Your task to perform on an android device: turn on javascript in the chrome app Image 0: 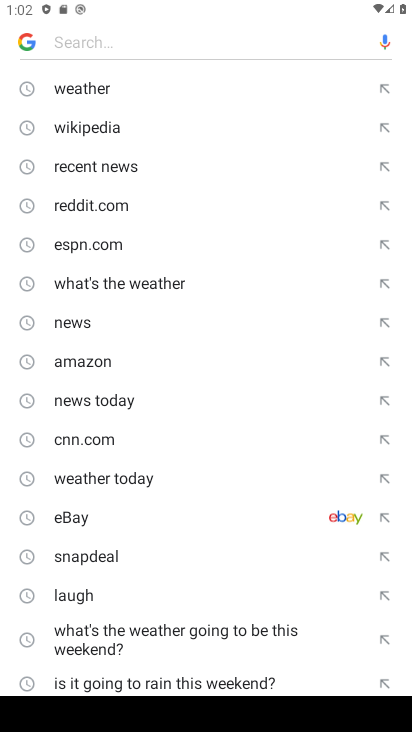
Step 0: press home button
Your task to perform on an android device: turn on javascript in the chrome app Image 1: 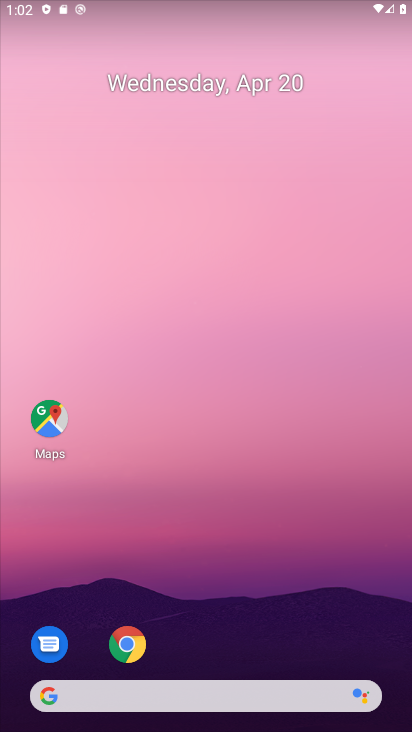
Step 1: click (130, 641)
Your task to perform on an android device: turn on javascript in the chrome app Image 2: 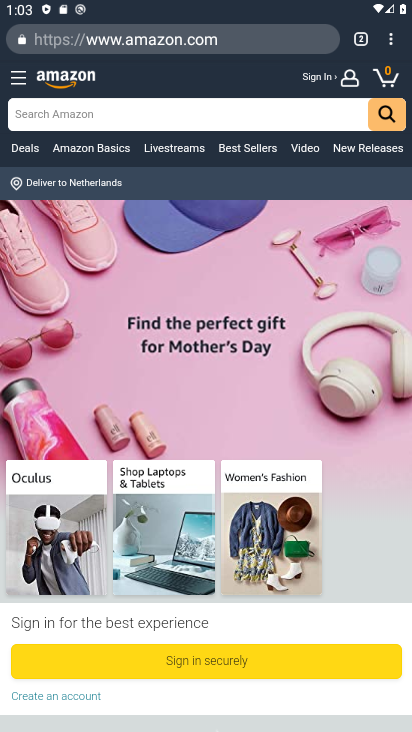
Step 2: click (391, 37)
Your task to perform on an android device: turn on javascript in the chrome app Image 3: 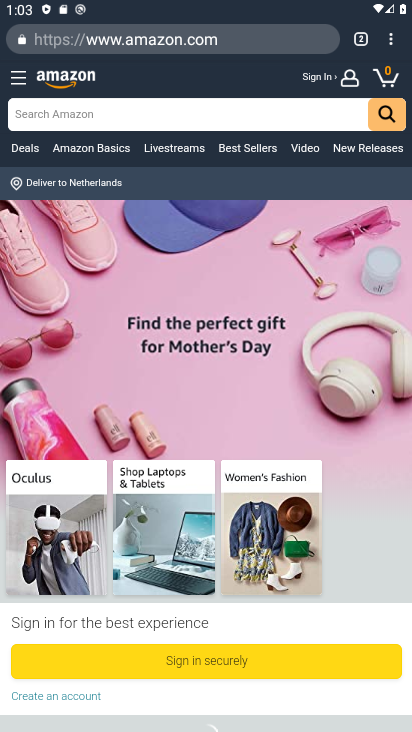
Step 3: click (391, 46)
Your task to perform on an android device: turn on javascript in the chrome app Image 4: 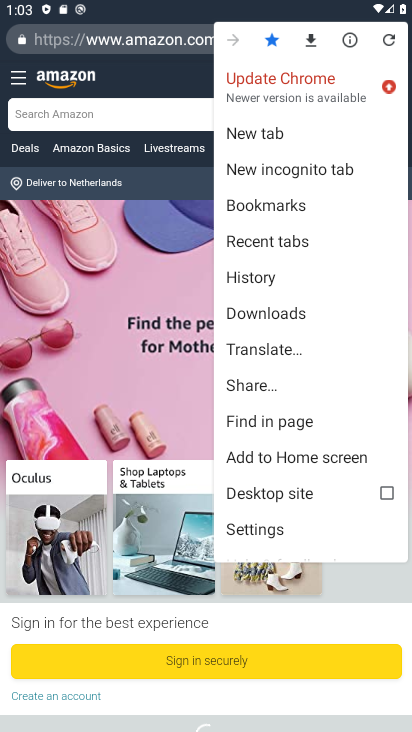
Step 4: click (278, 526)
Your task to perform on an android device: turn on javascript in the chrome app Image 5: 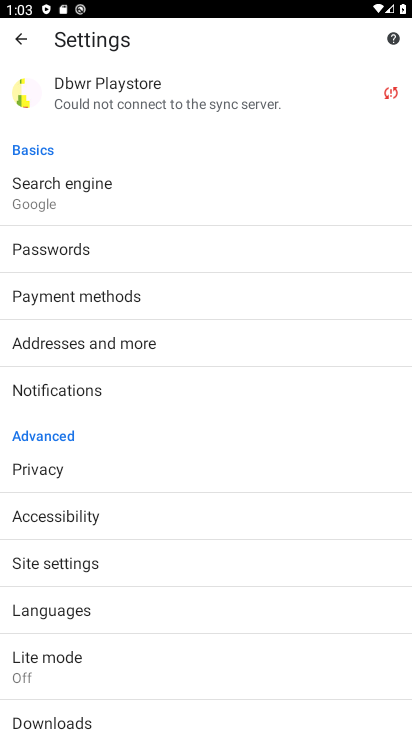
Step 5: click (188, 566)
Your task to perform on an android device: turn on javascript in the chrome app Image 6: 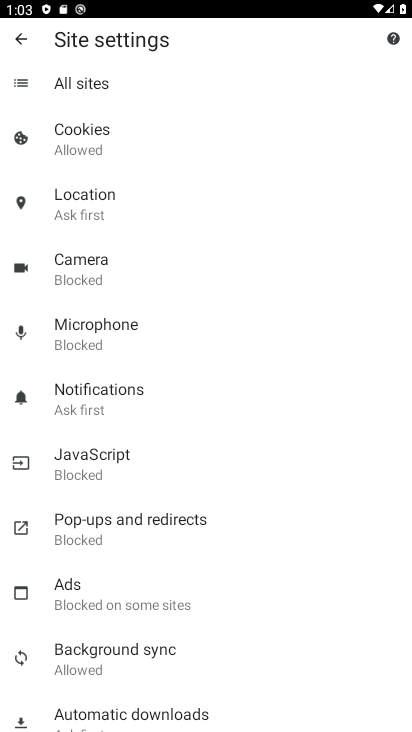
Step 6: click (153, 465)
Your task to perform on an android device: turn on javascript in the chrome app Image 7: 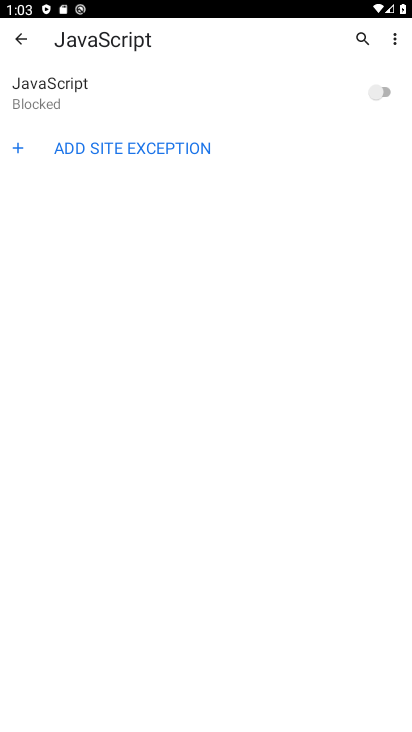
Step 7: click (380, 88)
Your task to perform on an android device: turn on javascript in the chrome app Image 8: 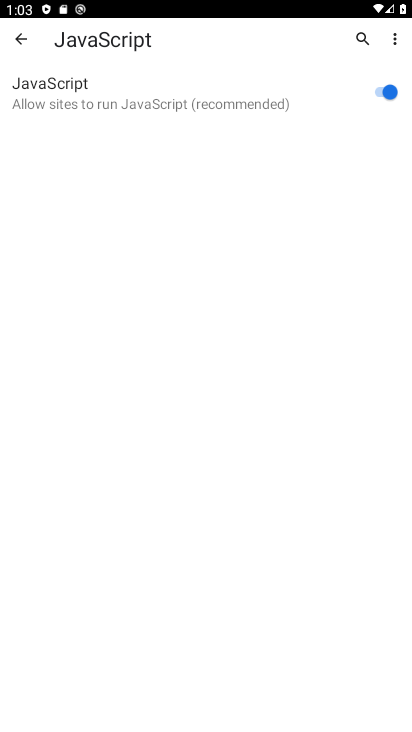
Step 8: task complete